Your task to perform on an android device: set the stopwatch Image 0: 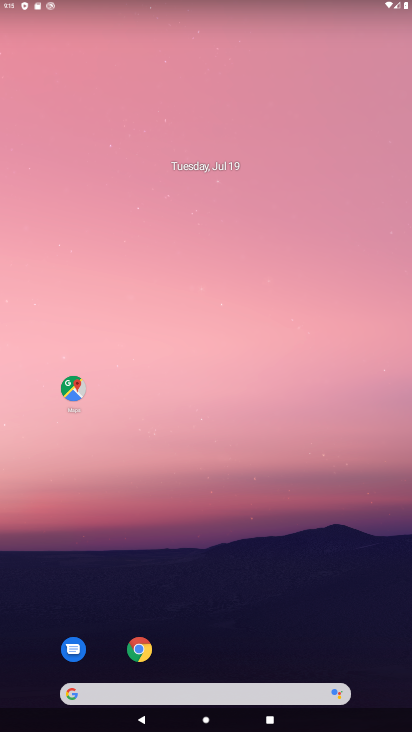
Step 0: drag from (263, 523) to (244, 156)
Your task to perform on an android device: set the stopwatch Image 1: 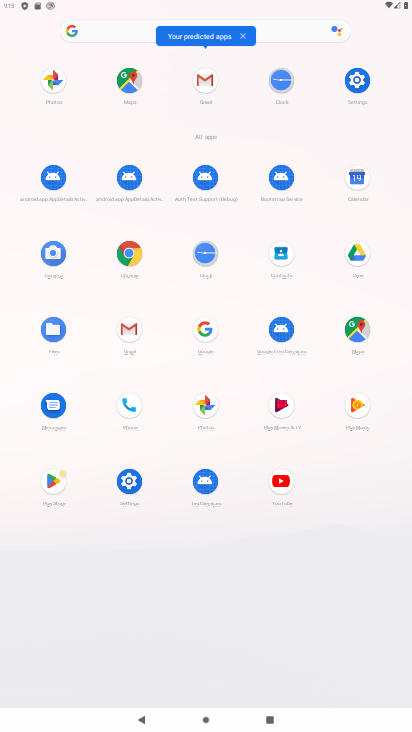
Step 1: click (206, 254)
Your task to perform on an android device: set the stopwatch Image 2: 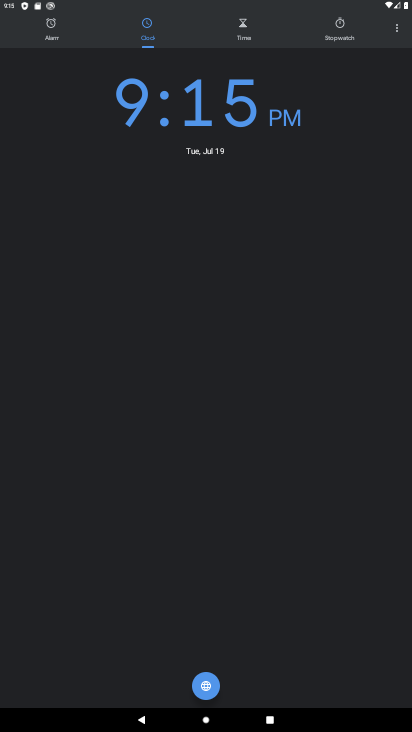
Step 2: click (333, 33)
Your task to perform on an android device: set the stopwatch Image 3: 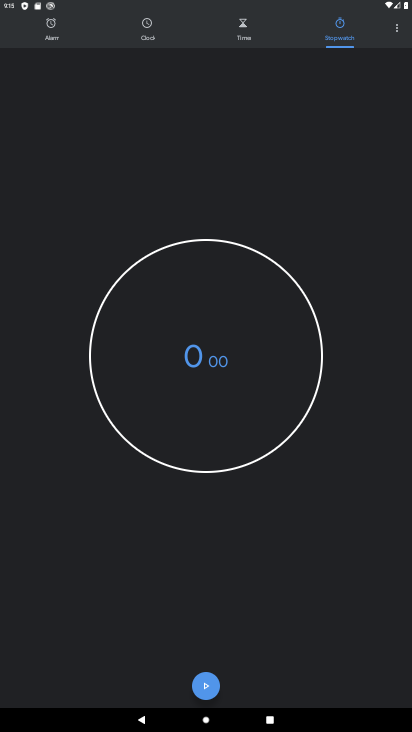
Step 3: click (284, 307)
Your task to perform on an android device: set the stopwatch Image 4: 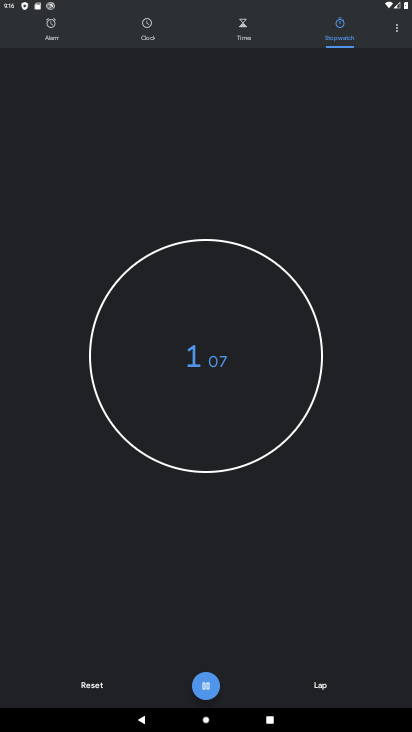
Step 4: task complete